Your task to perform on an android device: Is it going to rain this weekend? Image 0: 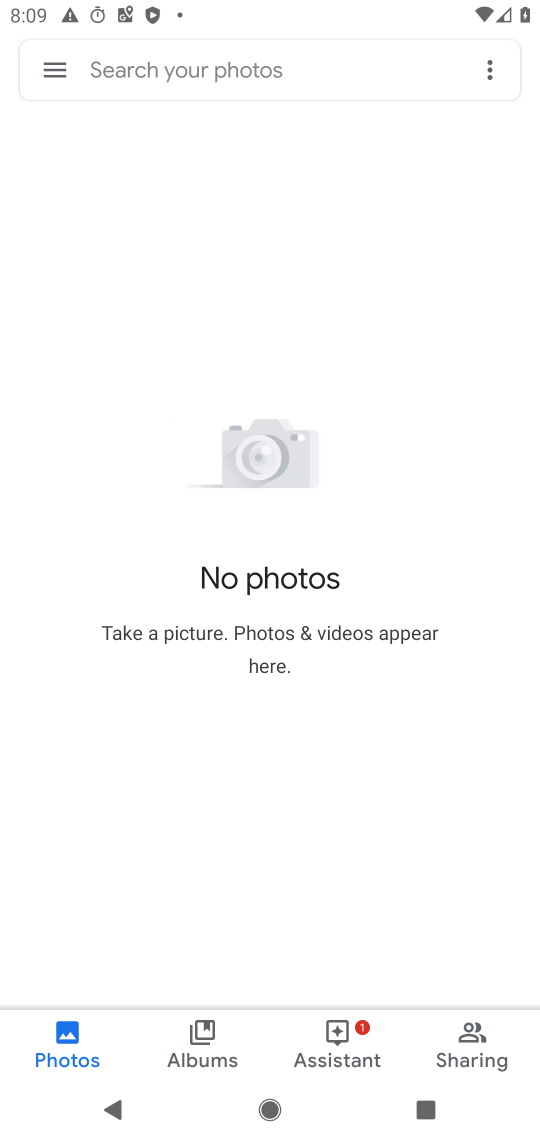
Step 0: press home button
Your task to perform on an android device: Is it going to rain this weekend? Image 1: 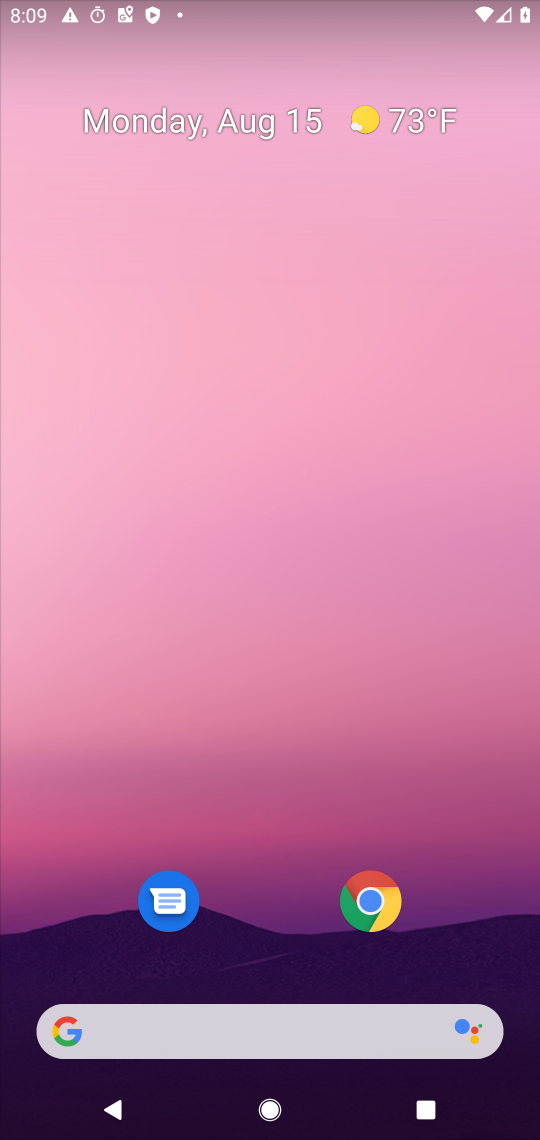
Step 1: click (418, 107)
Your task to perform on an android device: Is it going to rain this weekend? Image 2: 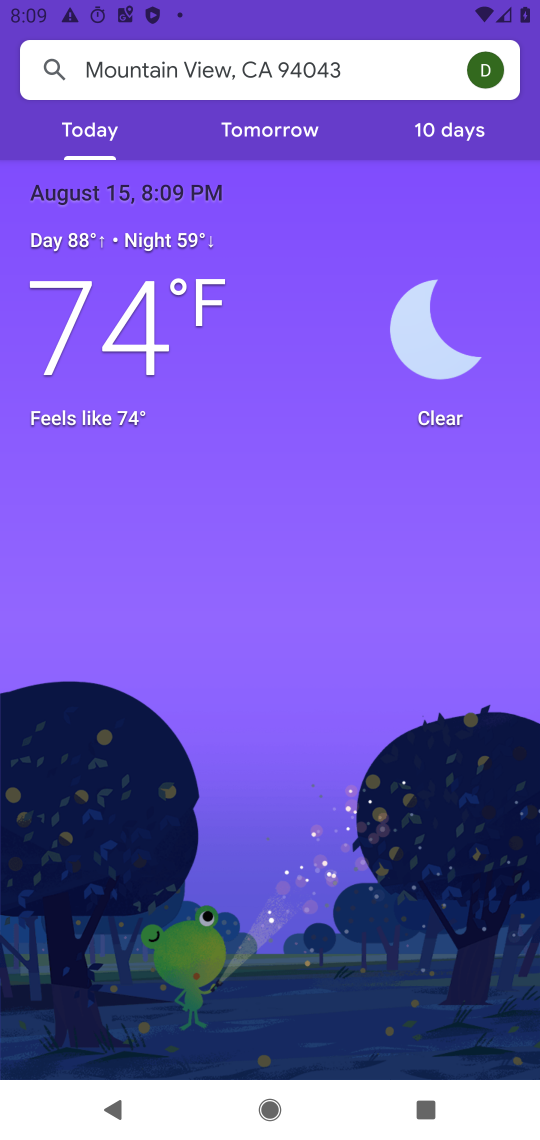
Step 2: click (447, 141)
Your task to perform on an android device: Is it going to rain this weekend? Image 3: 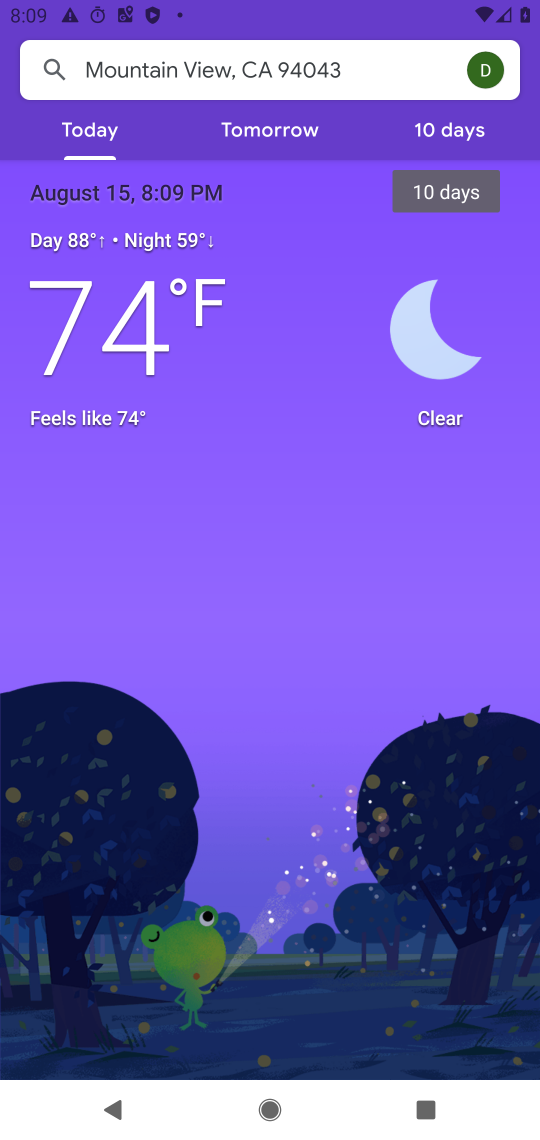
Step 3: click (494, 139)
Your task to perform on an android device: Is it going to rain this weekend? Image 4: 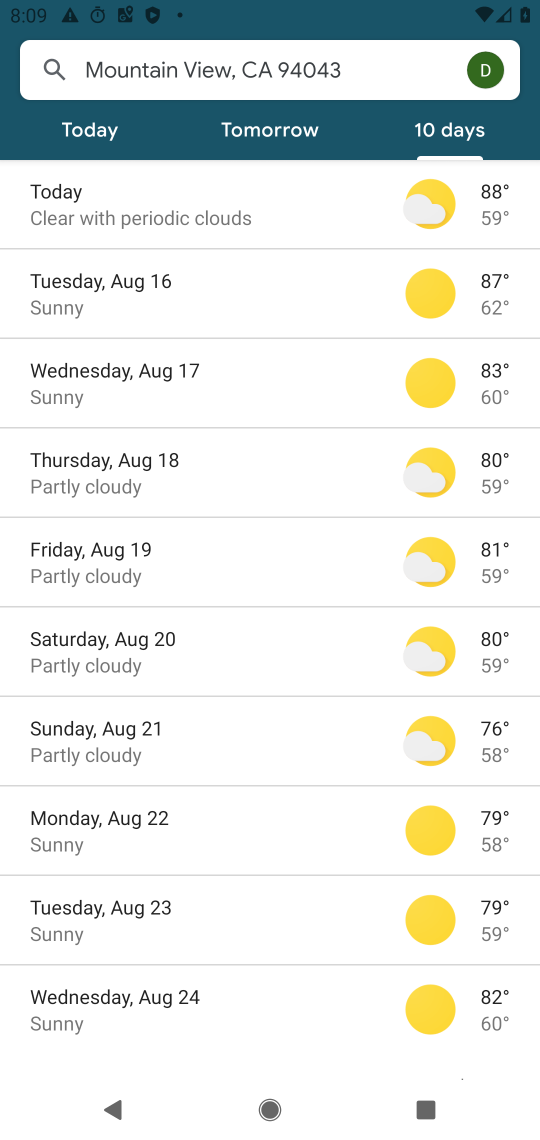
Step 4: task complete